Your task to perform on an android device: Open privacy settings Image 0: 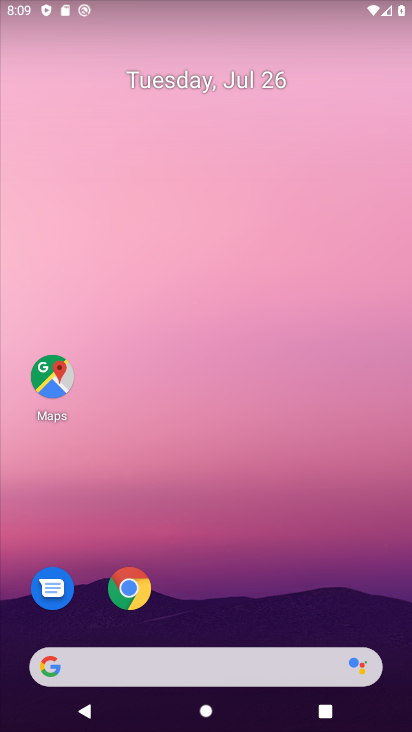
Step 0: drag from (201, 627) to (209, 139)
Your task to perform on an android device: Open privacy settings Image 1: 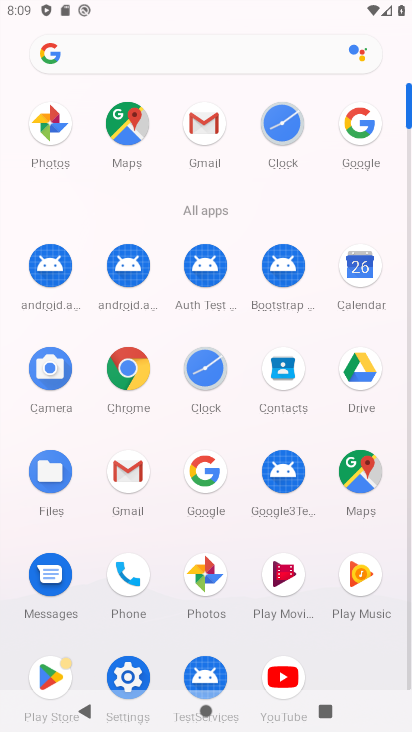
Step 1: click (118, 679)
Your task to perform on an android device: Open privacy settings Image 2: 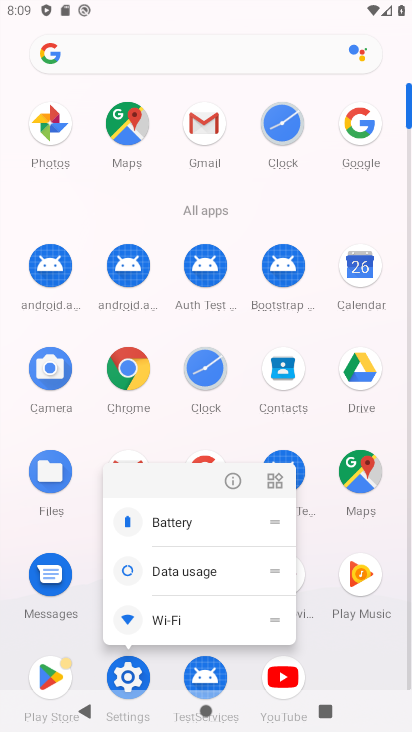
Step 2: click (238, 474)
Your task to perform on an android device: Open privacy settings Image 3: 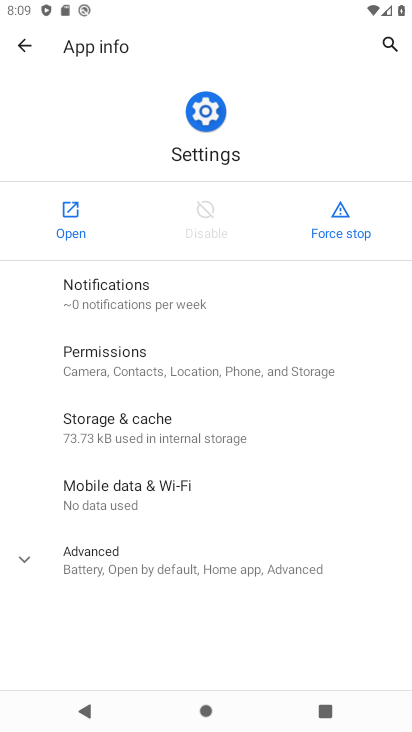
Step 3: click (82, 213)
Your task to perform on an android device: Open privacy settings Image 4: 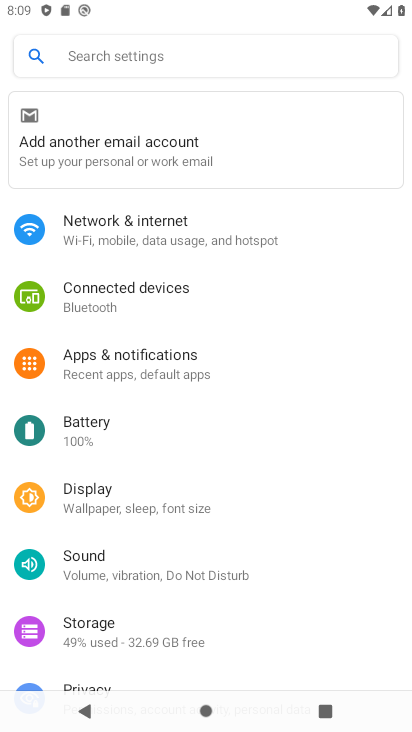
Step 4: drag from (115, 545) to (175, 334)
Your task to perform on an android device: Open privacy settings Image 5: 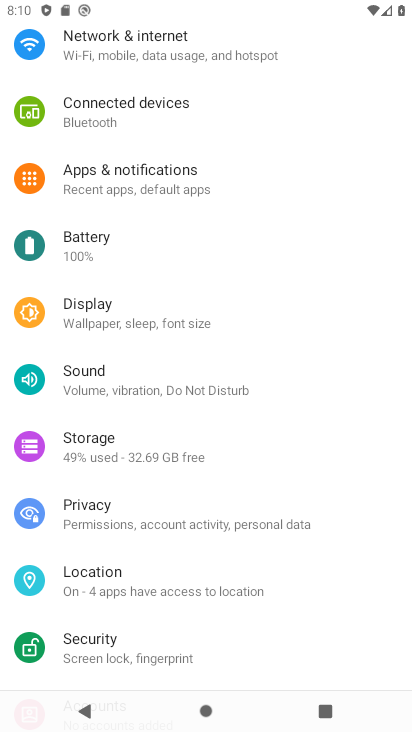
Step 5: click (111, 515)
Your task to perform on an android device: Open privacy settings Image 6: 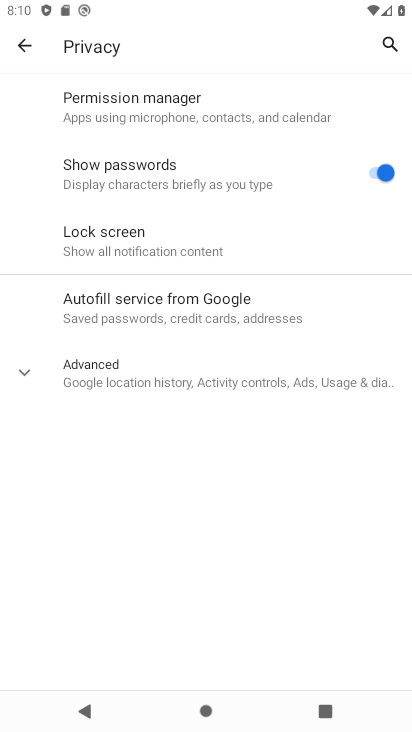
Step 6: task complete